Your task to perform on an android device: allow notifications from all sites in the chrome app Image 0: 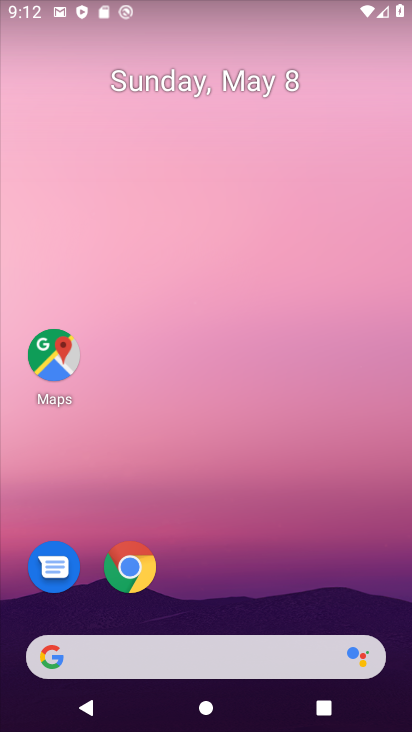
Step 0: click (134, 573)
Your task to perform on an android device: allow notifications from all sites in the chrome app Image 1: 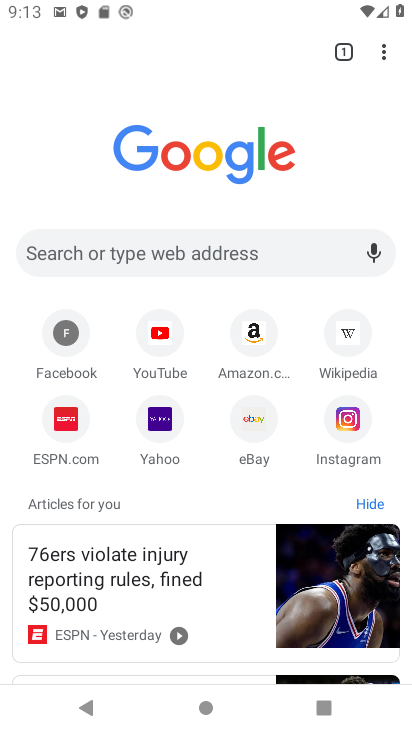
Step 1: drag from (384, 48) to (233, 427)
Your task to perform on an android device: allow notifications from all sites in the chrome app Image 2: 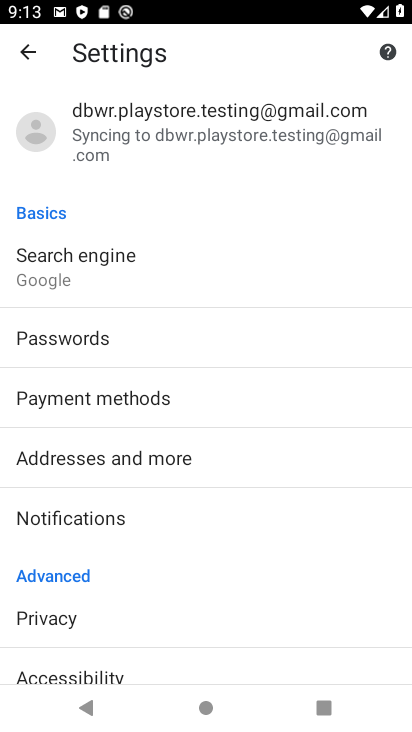
Step 2: drag from (174, 659) to (169, 360)
Your task to perform on an android device: allow notifications from all sites in the chrome app Image 3: 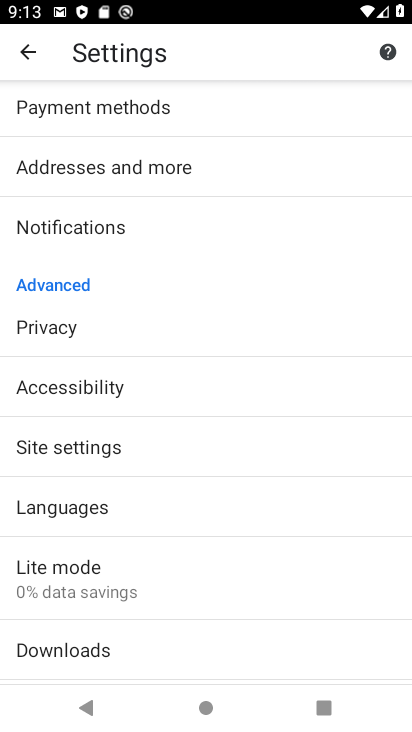
Step 3: click (91, 441)
Your task to perform on an android device: allow notifications from all sites in the chrome app Image 4: 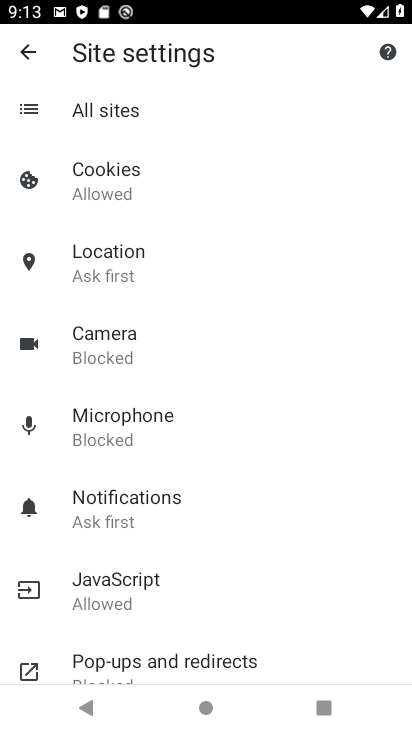
Step 4: click (127, 507)
Your task to perform on an android device: allow notifications from all sites in the chrome app Image 5: 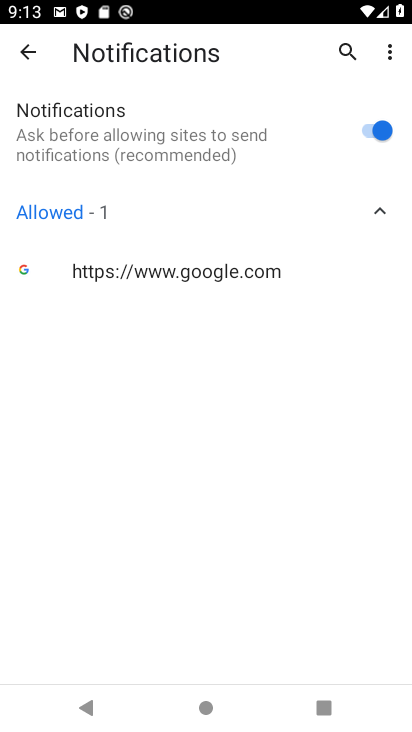
Step 5: task complete